Your task to perform on an android device: Open Amazon Image 0: 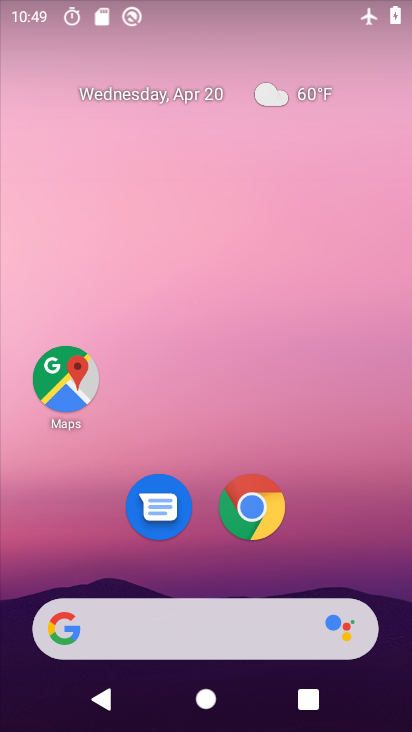
Step 0: click (258, 502)
Your task to perform on an android device: Open Amazon Image 1: 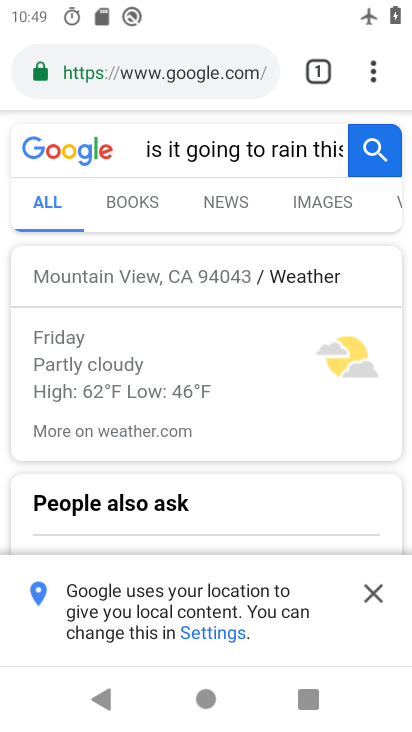
Step 1: click (231, 139)
Your task to perform on an android device: Open Amazon Image 2: 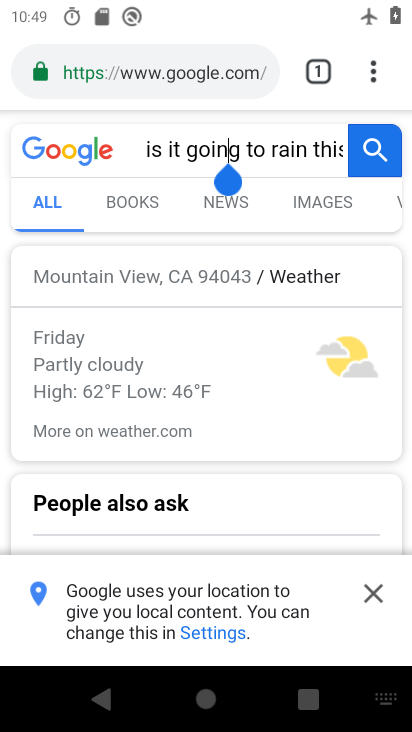
Step 2: click (204, 86)
Your task to perform on an android device: Open Amazon Image 3: 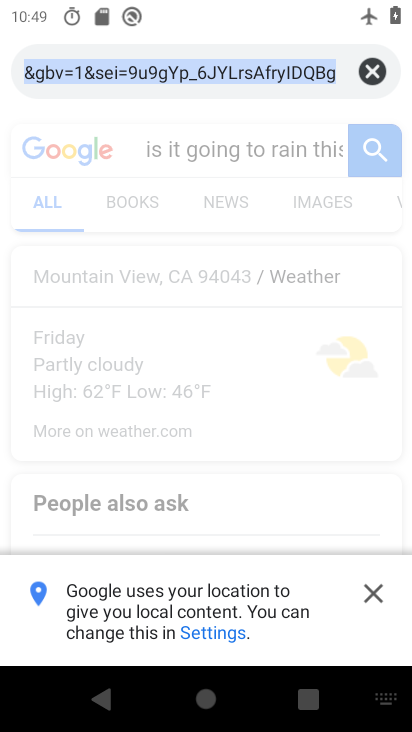
Step 3: type "amazon"
Your task to perform on an android device: Open Amazon Image 4: 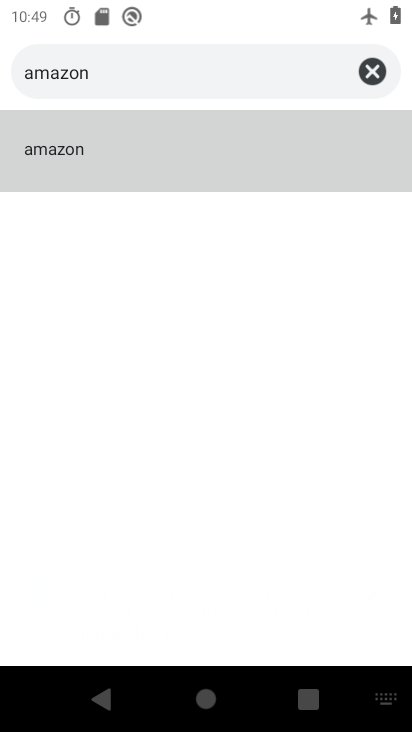
Step 4: click (134, 170)
Your task to perform on an android device: Open Amazon Image 5: 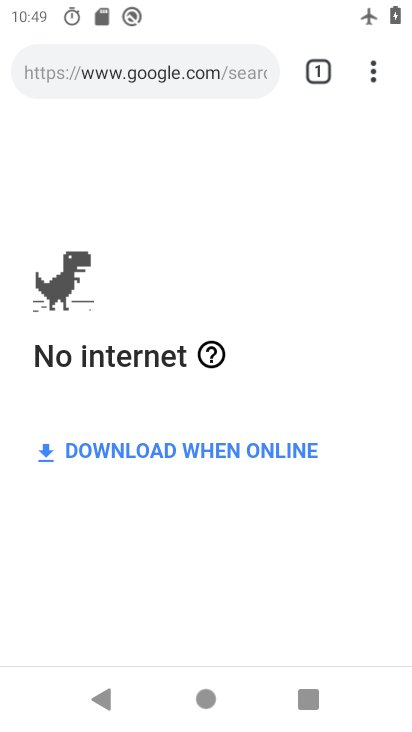
Step 5: task complete